Your task to perform on an android device: Go to settings Image 0: 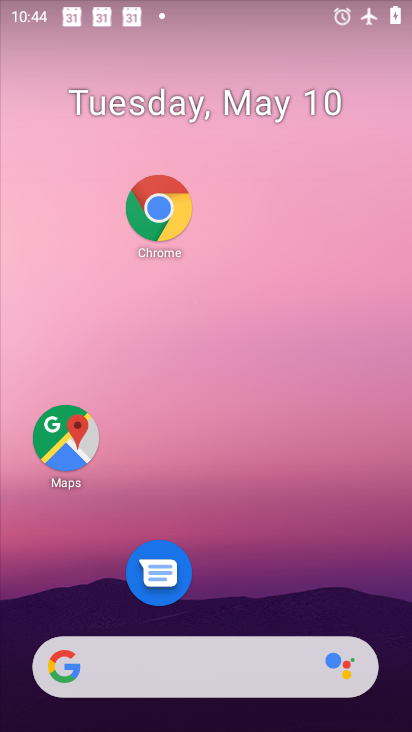
Step 0: drag from (251, 697) to (234, 221)
Your task to perform on an android device: Go to settings Image 1: 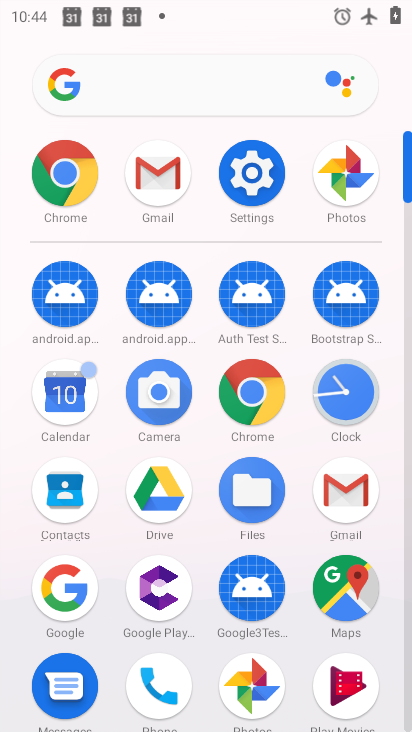
Step 1: click (236, 194)
Your task to perform on an android device: Go to settings Image 2: 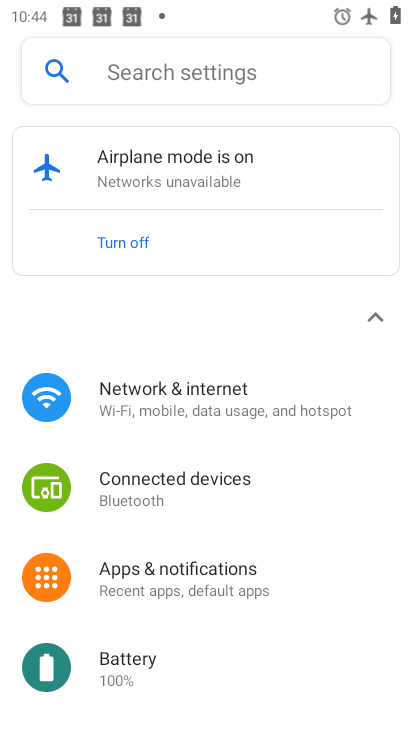
Step 2: click (189, 241)
Your task to perform on an android device: Go to settings Image 3: 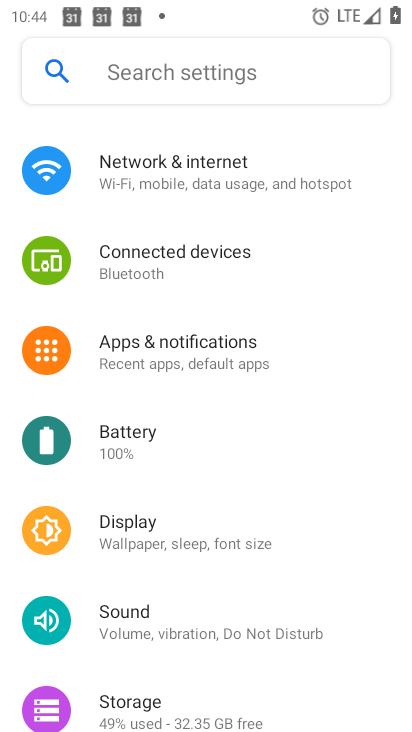
Step 3: task complete